Your task to perform on an android device: Turn on the flashlight Image 0: 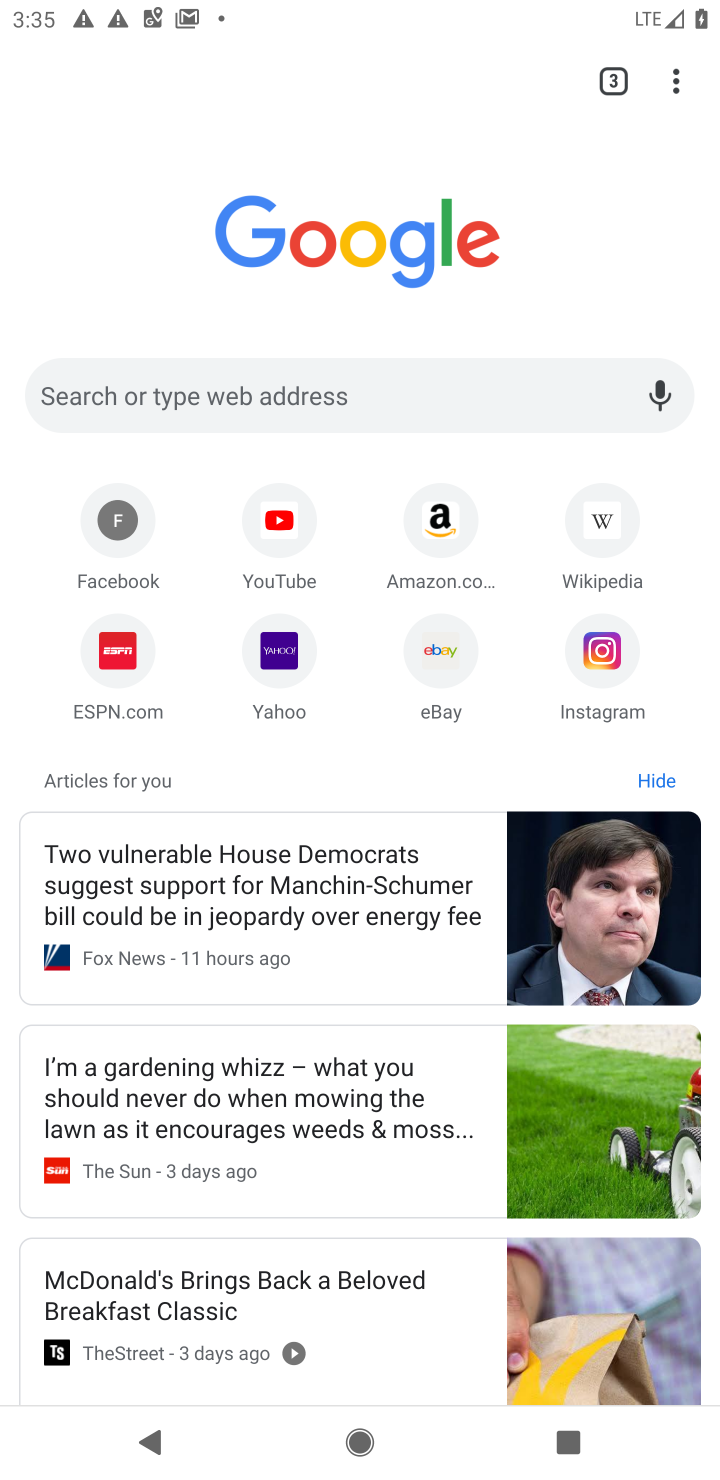
Step 0: press home button
Your task to perform on an android device: Turn on the flashlight Image 1: 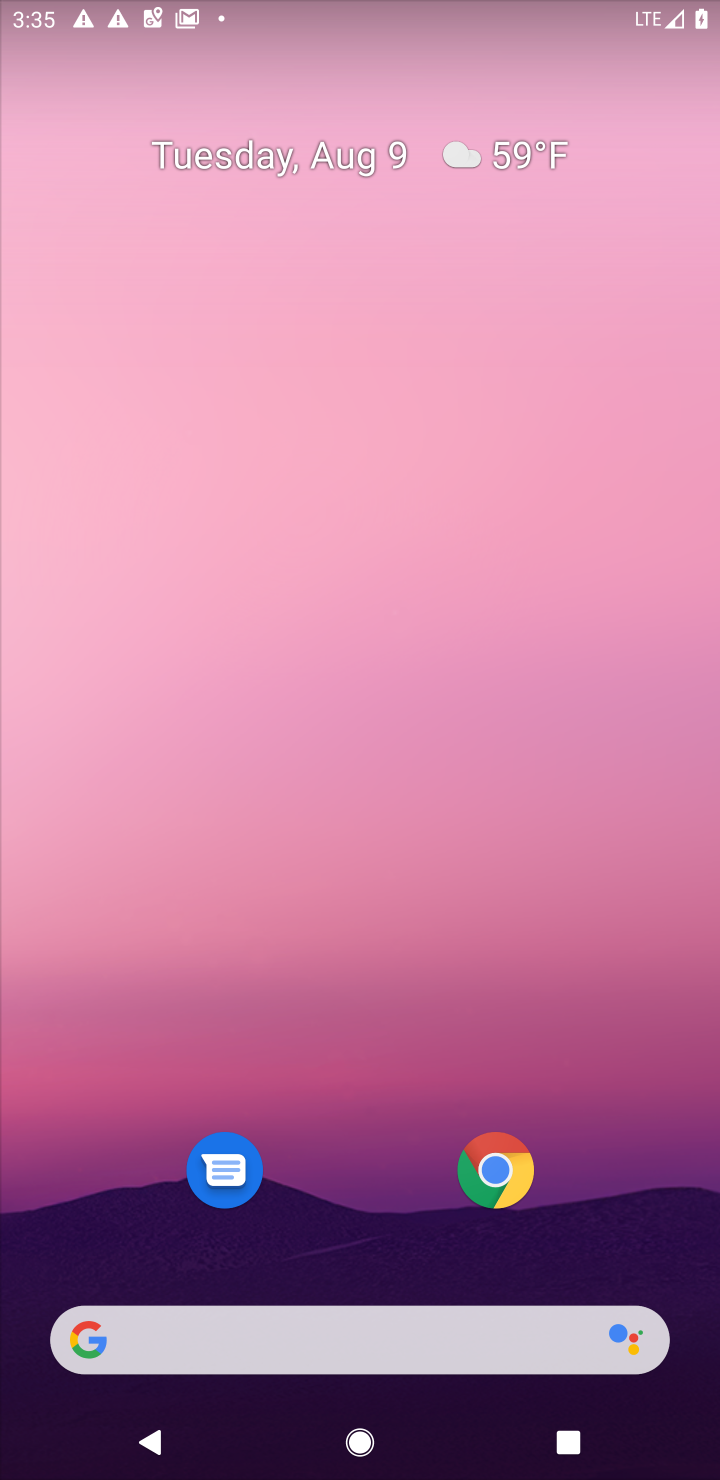
Step 1: task complete